Your task to perform on an android device: turn on the 12-hour format for clock Image 0: 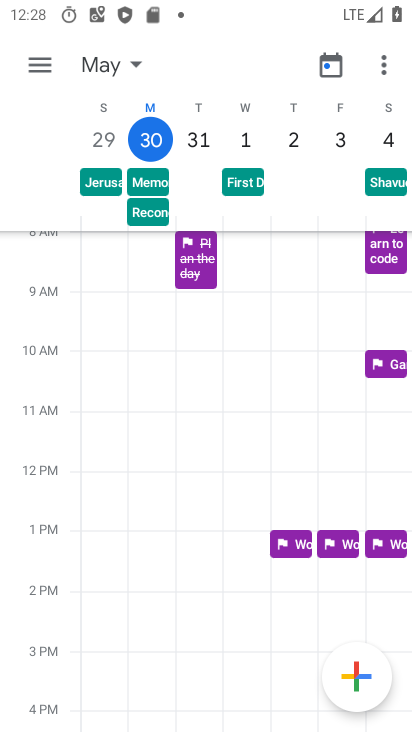
Step 0: press home button
Your task to perform on an android device: turn on the 12-hour format for clock Image 1: 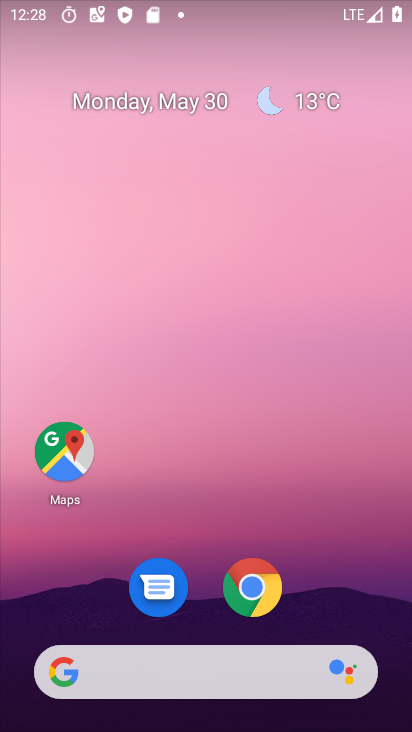
Step 1: drag from (355, 555) to (303, 218)
Your task to perform on an android device: turn on the 12-hour format for clock Image 2: 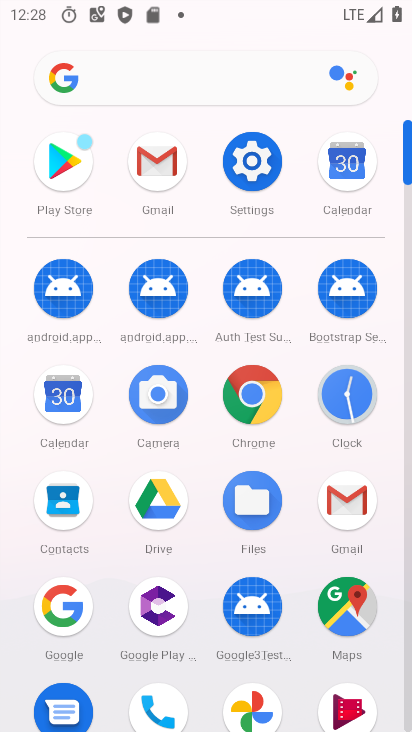
Step 2: click (350, 415)
Your task to perform on an android device: turn on the 12-hour format for clock Image 3: 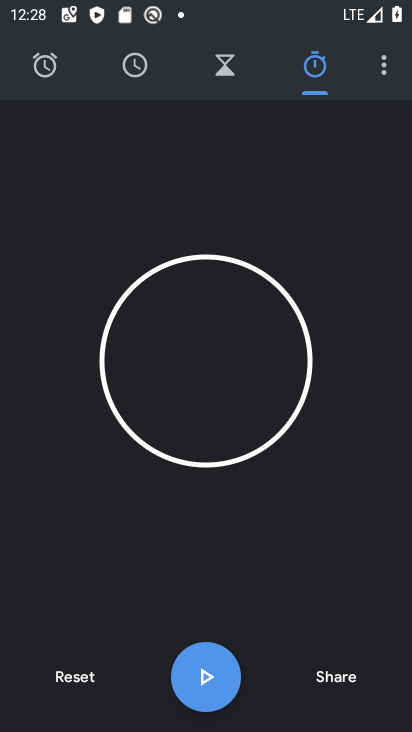
Step 3: click (387, 63)
Your task to perform on an android device: turn on the 12-hour format for clock Image 4: 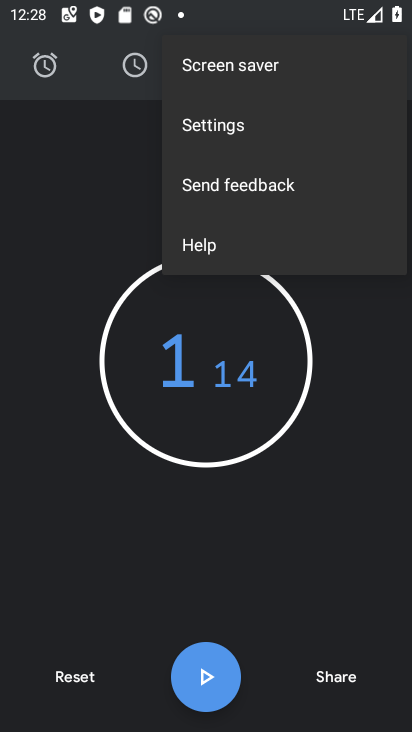
Step 4: click (242, 128)
Your task to perform on an android device: turn on the 12-hour format for clock Image 5: 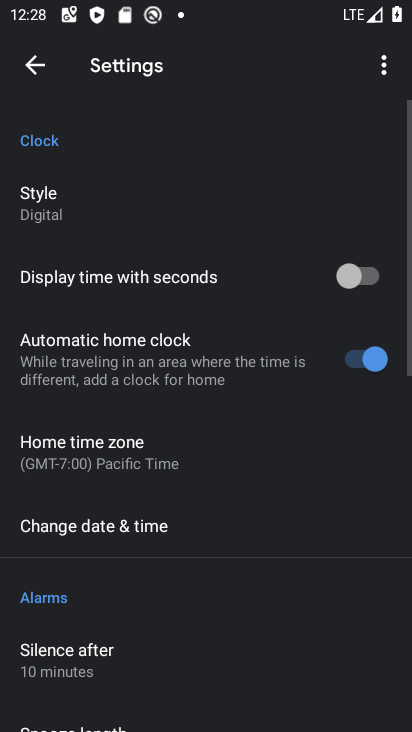
Step 5: click (198, 535)
Your task to perform on an android device: turn on the 12-hour format for clock Image 6: 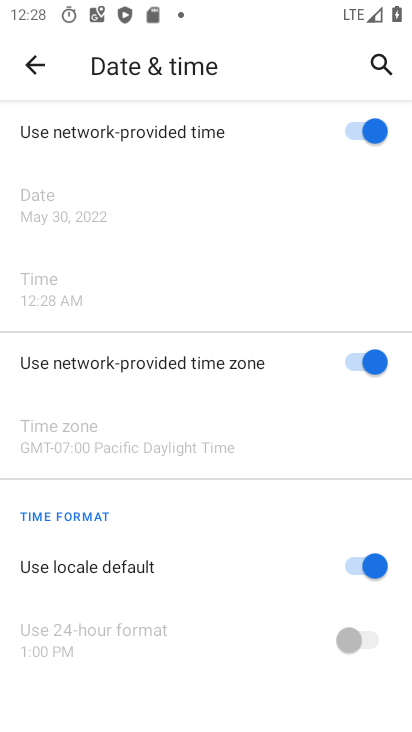
Step 6: task complete